Your task to perform on an android device: open device folders in google photos Image 0: 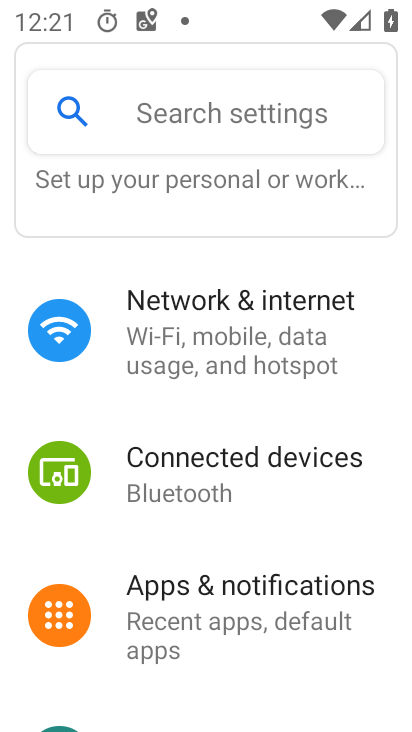
Step 0: press home button
Your task to perform on an android device: open device folders in google photos Image 1: 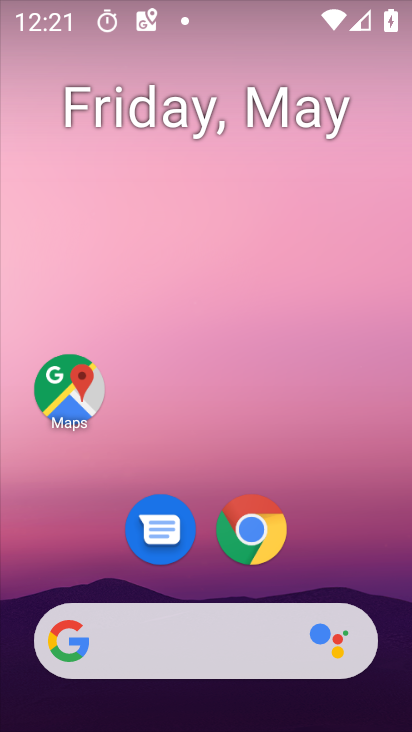
Step 1: drag from (253, 694) to (273, 146)
Your task to perform on an android device: open device folders in google photos Image 2: 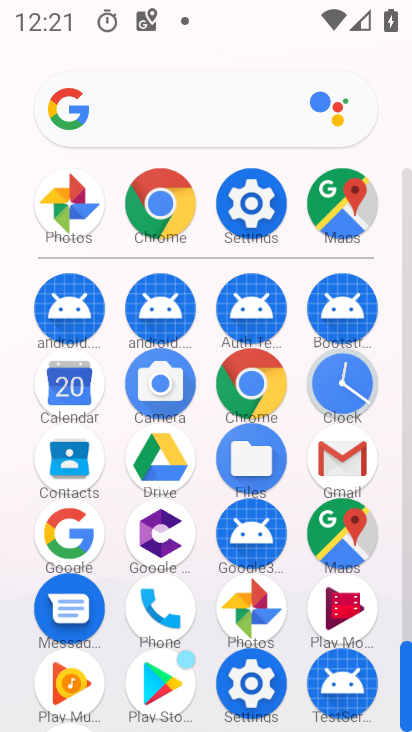
Step 2: click (263, 622)
Your task to perform on an android device: open device folders in google photos Image 3: 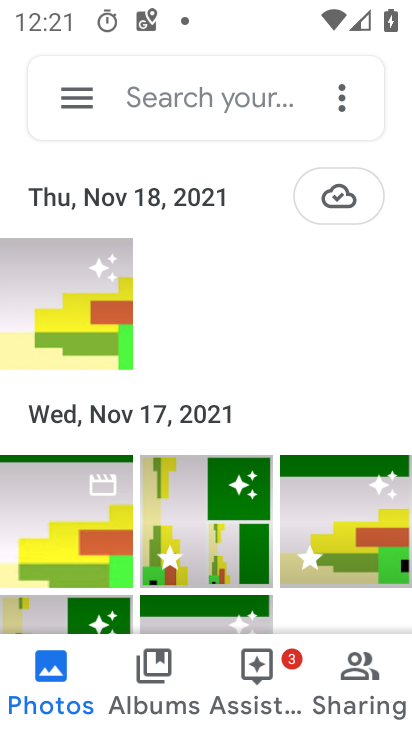
Step 3: click (70, 100)
Your task to perform on an android device: open device folders in google photos Image 4: 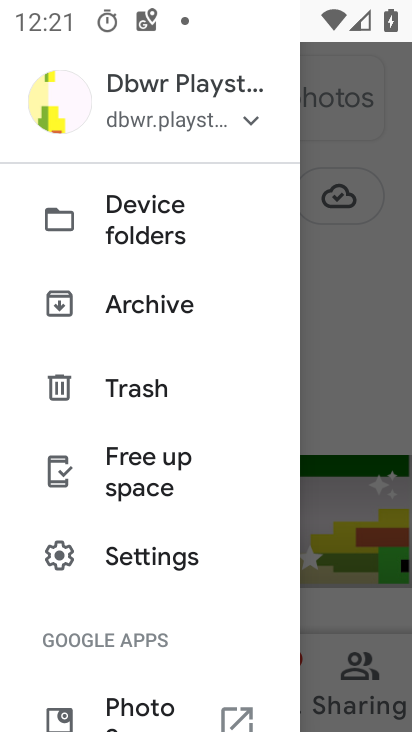
Step 4: click (165, 212)
Your task to perform on an android device: open device folders in google photos Image 5: 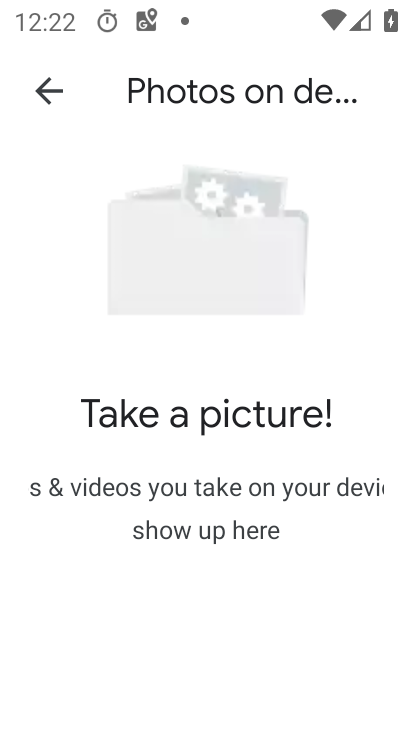
Step 5: task complete